Your task to perform on an android device: When is my next appointment? Image 0: 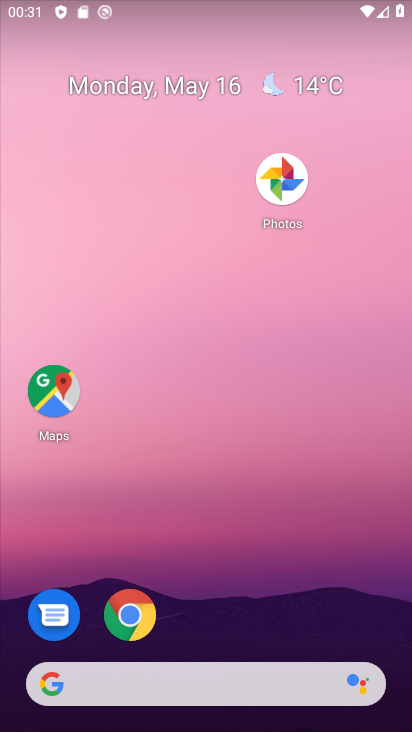
Step 0: drag from (323, 507) to (312, 76)
Your task to perform on an android device: When is my next appointment? Image 1: 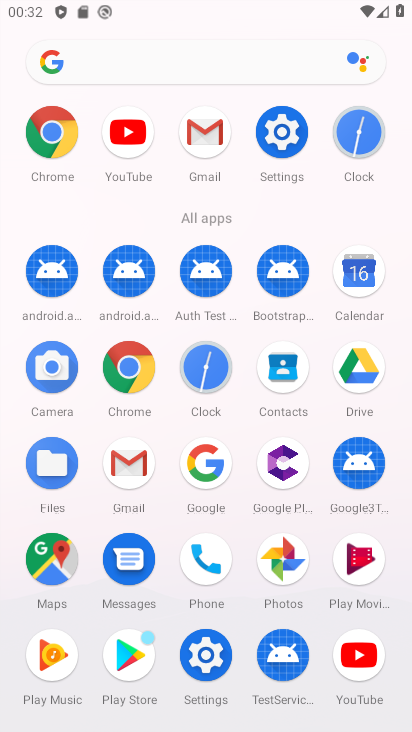
Step 1: drag from (233, 597) to (244, 188)
Your task to perform on an android device: When is my next appointment? Image 2: 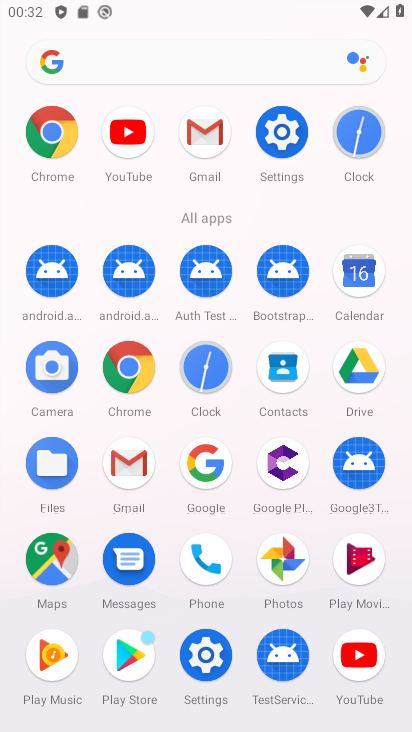
Step 2: click (122, 361)
Your task to perform on an android device: When is my next appointment? Image 3: 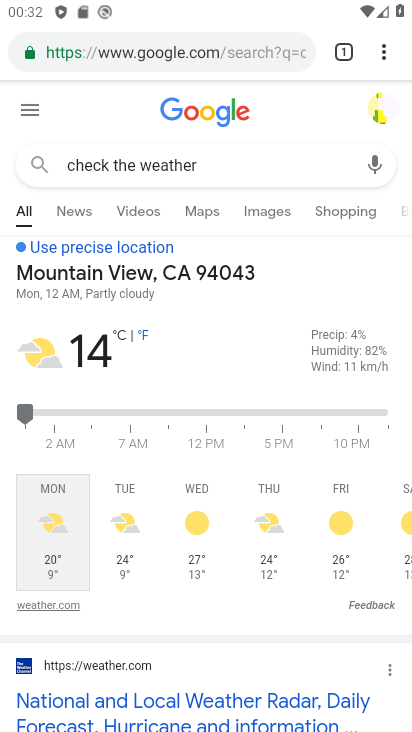
Step 3: click (217, 55)
Your task to perform on an android device: When is my next appointment? Image 4: 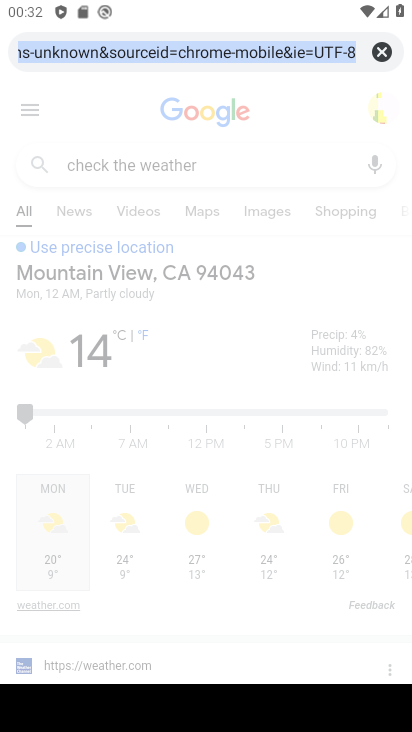
Step 4: click (390, 57)
Your task to perform on an android device: When is my next appointment? Image 5: 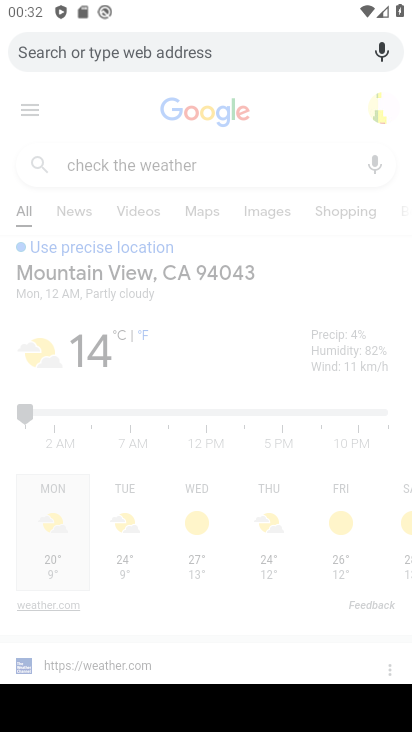
Step 5: type "when is my next  appointment "
Your task to perform on an android device: When is my next appointment? Image 6: 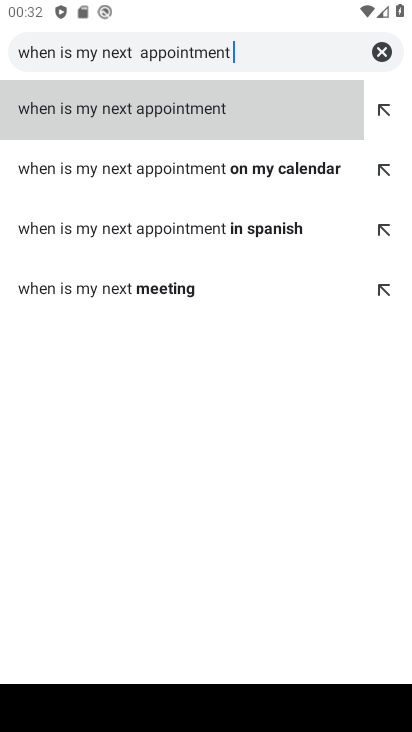
Step 6: click (85, 114)
Your task to perform on an android device: When is my next appointment? Image 7: 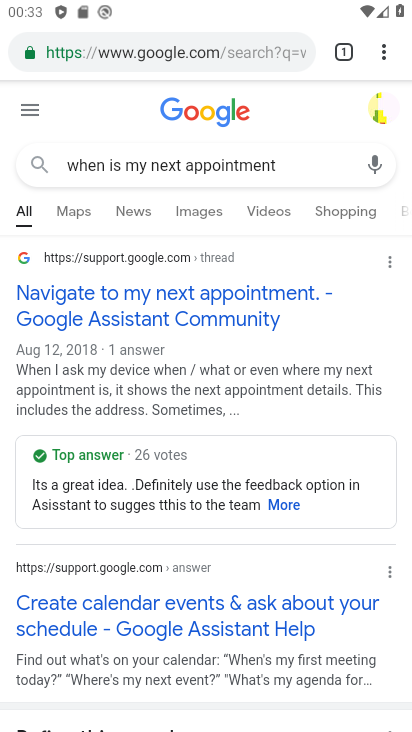
Step 7: task complete